Your task to perform on an android device: empty trash in the gmail app Image 0: 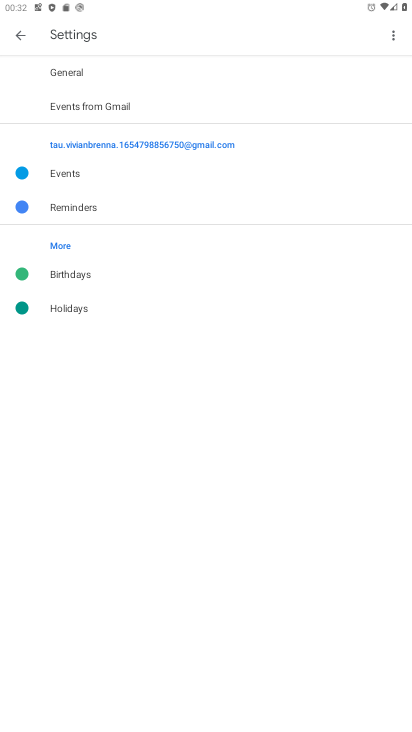
Step 0: press home button
Your task to perform on an android device: empty trash in the gmail app Image 1: 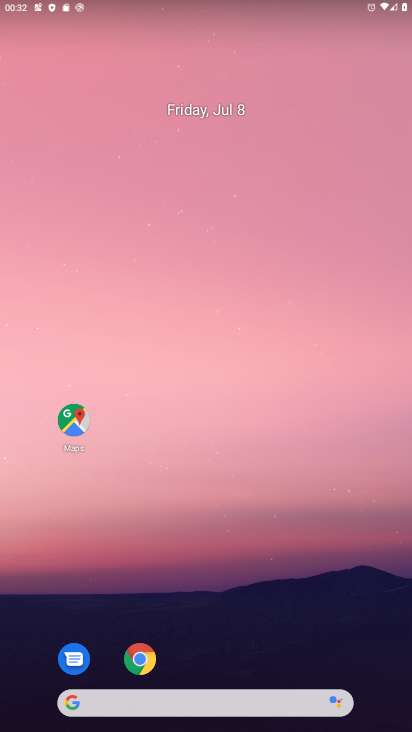
Step 1: click (204, 52)
Your task to perform on an android device: empty trash in the gmail app Image 2: 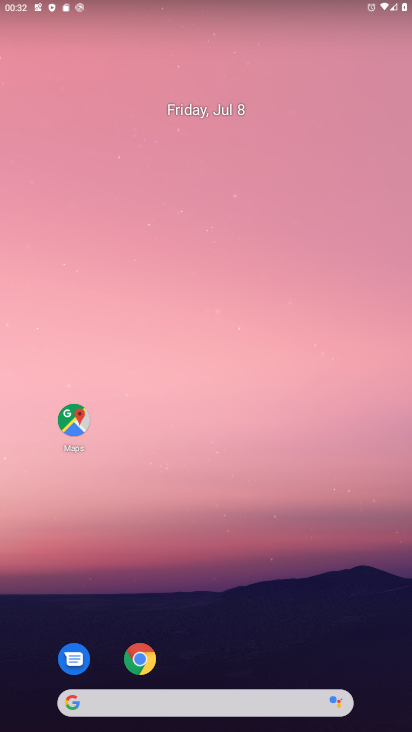
Step 2: drag from (208, 668) to (186, 111)
Your task to perform on an android device: empty trash in the gmail app Image 3: 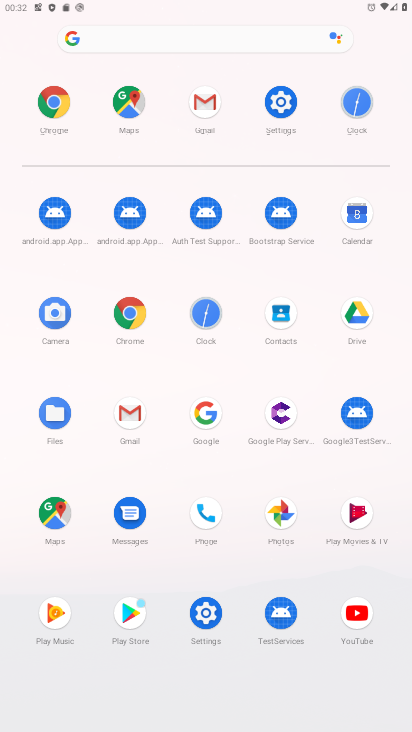
Step 3: click (205, 93)
Your task to perform on an android device: empty trash in the gmail app Image 4: 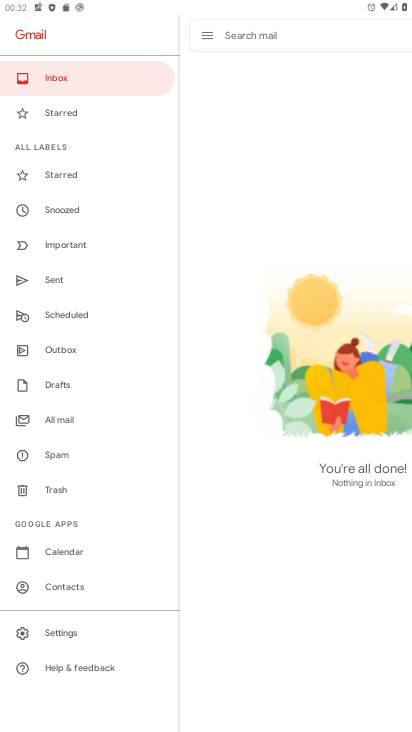
Step 4: click (68, 488)
Your task to perform on an android device: empty trash in the gmail app Image 5: 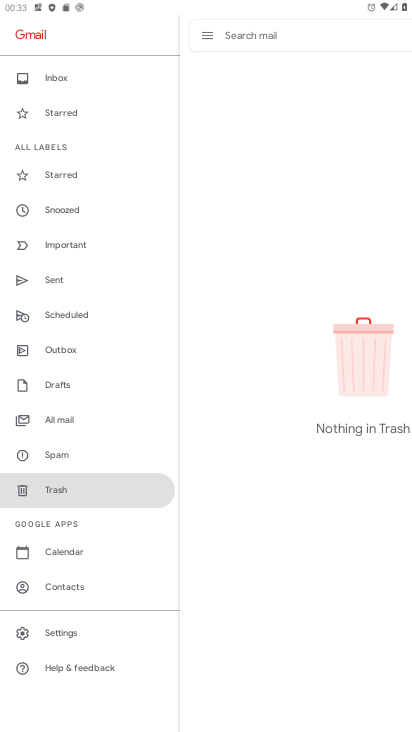
Step 5: task complete